Your task to perform on an android device: Open ESPN.com Image 0: 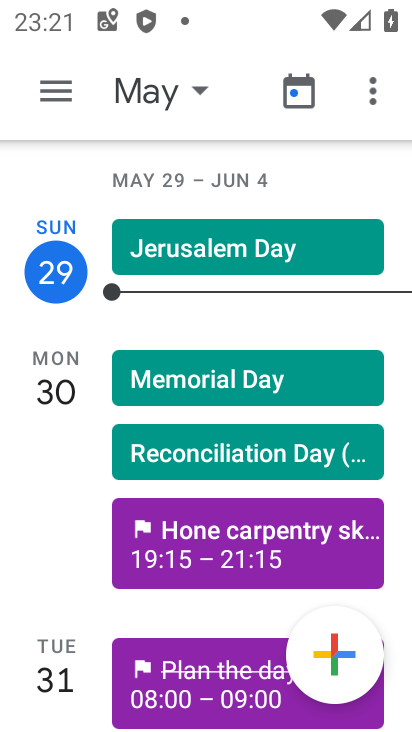
Step 0: press home button
Your task to perform on an android device: Open ESPN.com Image 1: 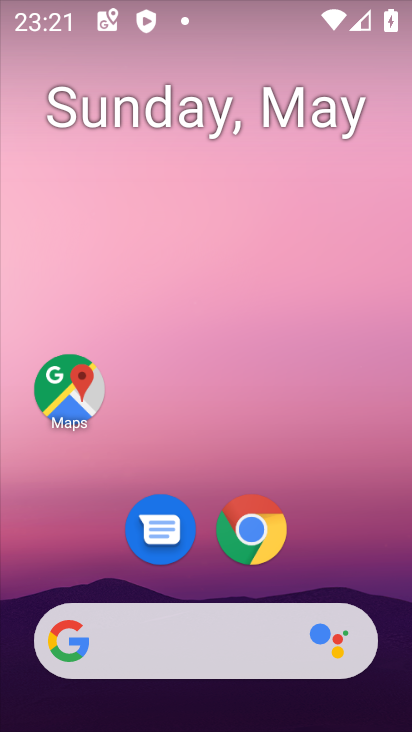
Step 1: click (197, 628)
Your task to perform on an android device: Open ESPN.com Image 2: 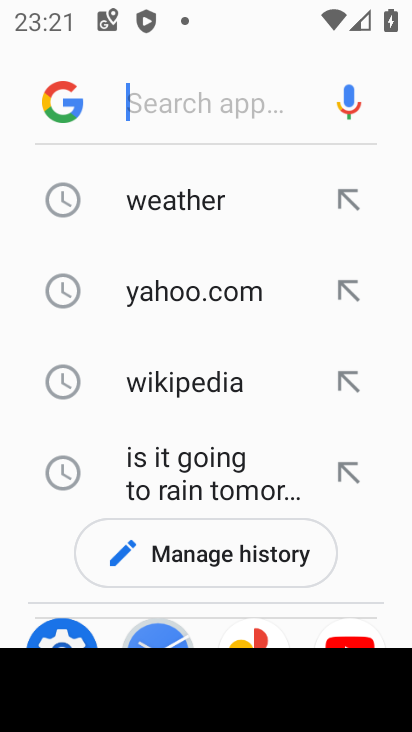
Step 2: type "espn.com"
Your task to perform on an android device: Open ESPN.com Image 3: 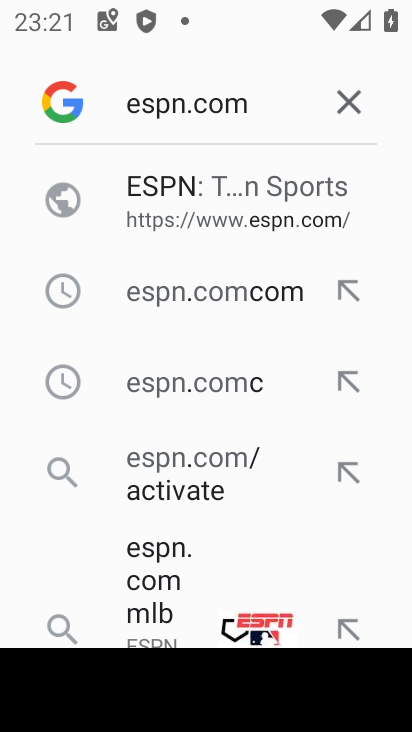
Step 3: click (183, 185)
Your task to perform on an android device: Open ESPN.com Image 4: 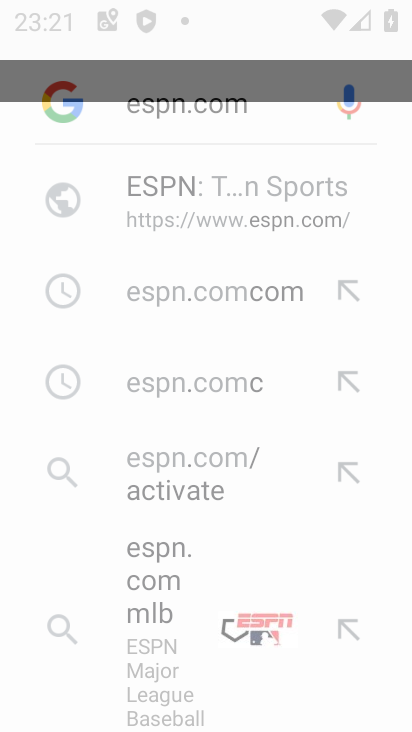
Step 4: task complete